Your task to perform on an android device: Open Chrome and go to settings Image 0: 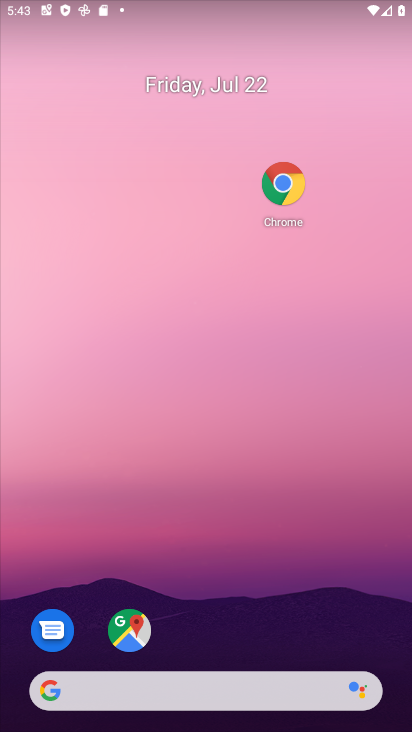
Step 0: click (285, 189)
Your task to perform on an android device: Open Chrome and go to settings Image 1: 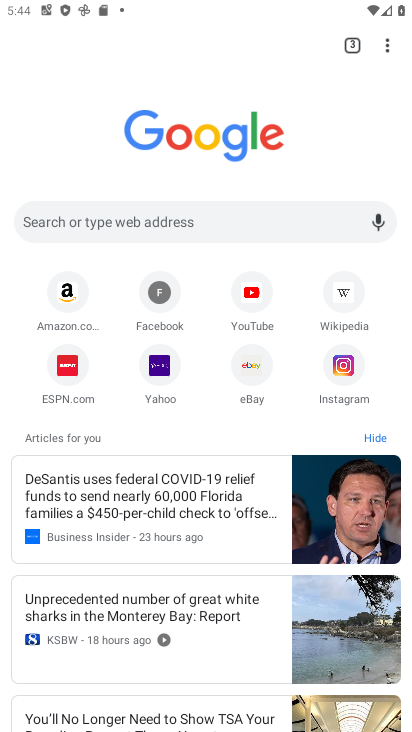
Step 1: click (380, 42)
Your task to perform on an android device: Open Chrome and go to settings Image 2: 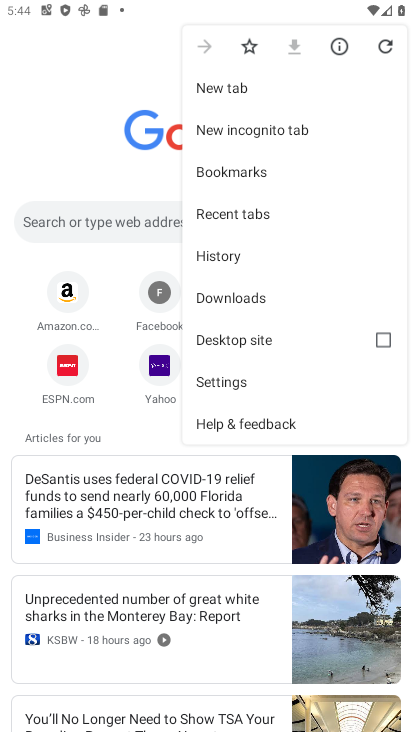
Step 2: click (229, 387)
Your task to perform on an android device: Open Chrome and go to settings Image 3: 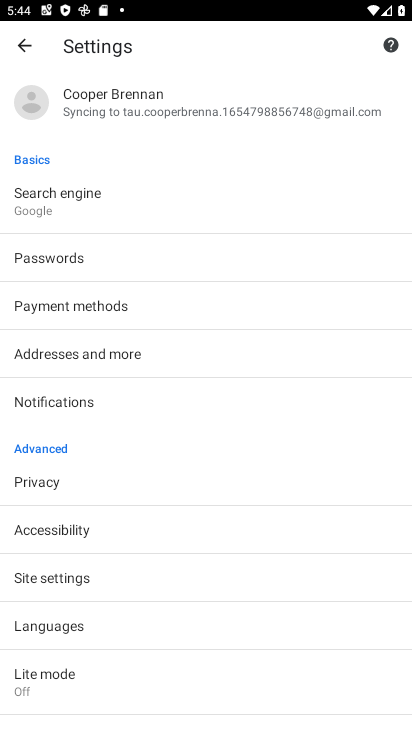
Step 3: task complete